Your task to perform on an android device: Open battery settings Image 0: 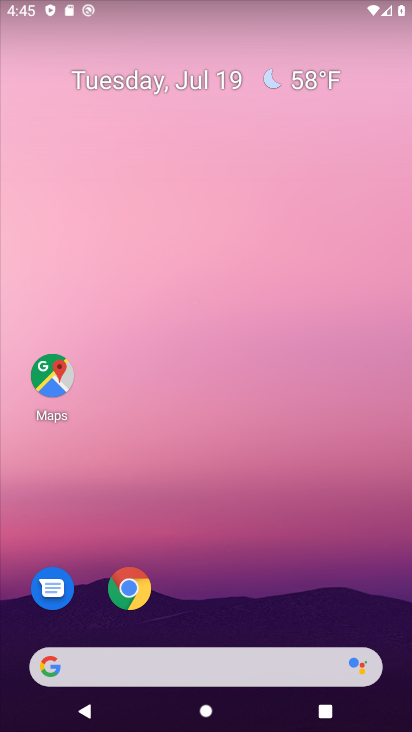
Step 0: drag from (286, 621) to (273, 99)
Your task to perform on an android device: Open battery settings Image 1: 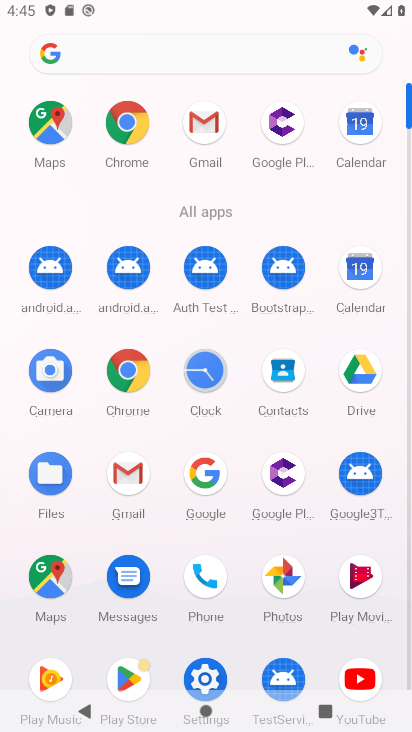
Step 1: click (210, 662)
Your task to perform on an android device: Open battery settings Image 2: 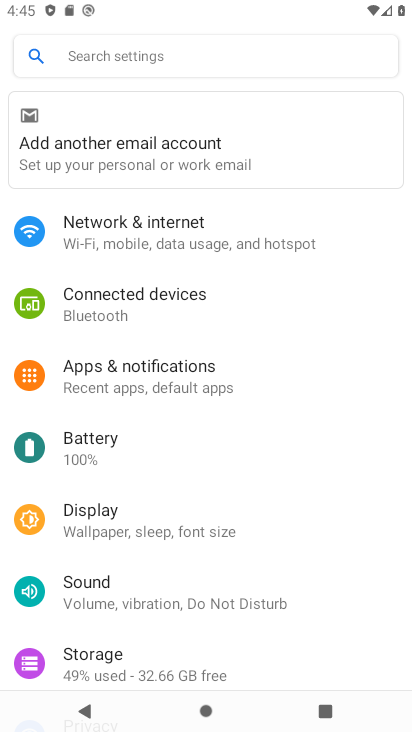
Step 2: click (90, 439)
Your task to perform on an android device: Open battery settings Image 3: 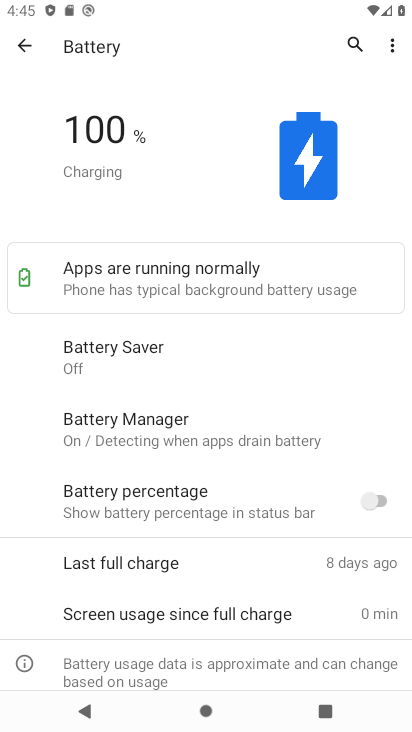
Step 3: task complete